Your task to perform on an android device: Go to network settings Image 0: 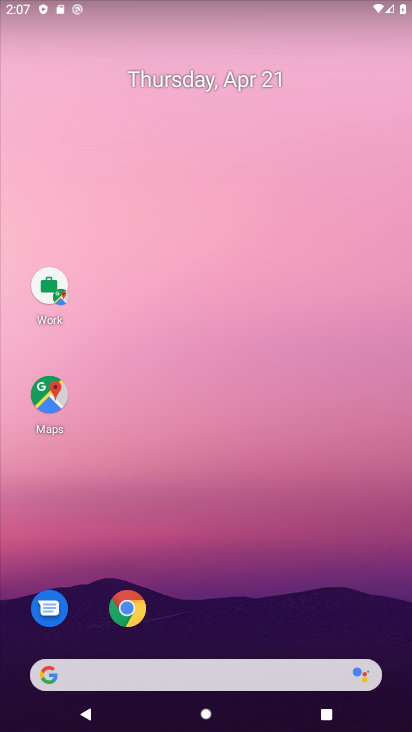
Step 0: drag from (228, 553) to (171, 274)
Your task to perform on an android device: Go to network settings Image 1: 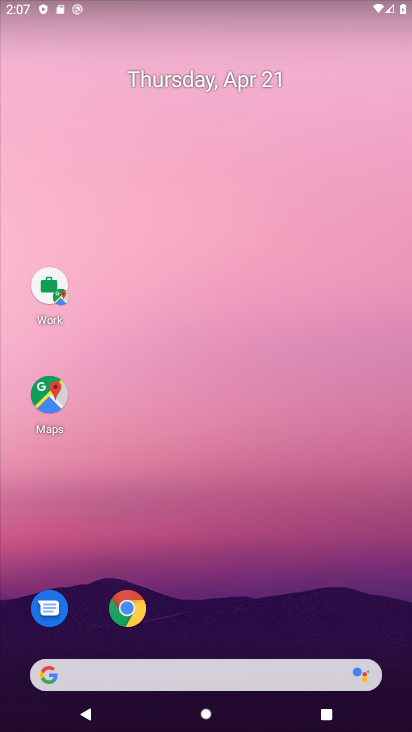
Step 1: drag from (229, 614) to (189, 257)
Your task to perform on an android device: Go to network settings Image 2: 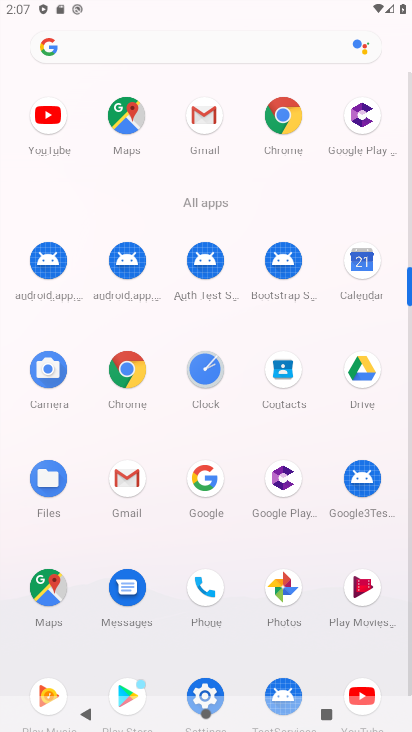
Step 2: click (211, 688)
Your task to perform on an android device: Go to network settings Image 3: 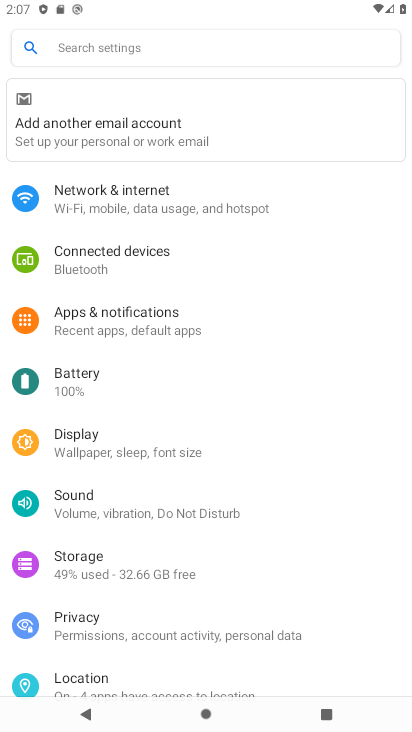
Step 3: click (145, 199)
Your task to perform on an android device: Go to network settings Image 4: 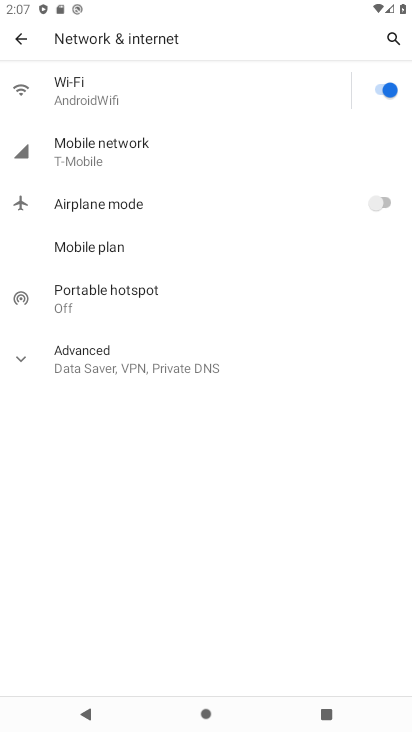
Step 4: task complete